Your task to perform on an android device: see tabs open on other devices in the chrome app Image 0: 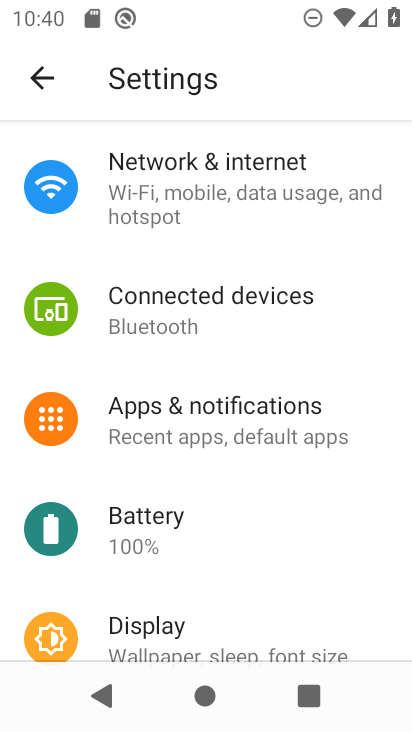
Step 0: press home button
Your task to perform on an android device: see tabs open on other devices in the chrome app Image 1: 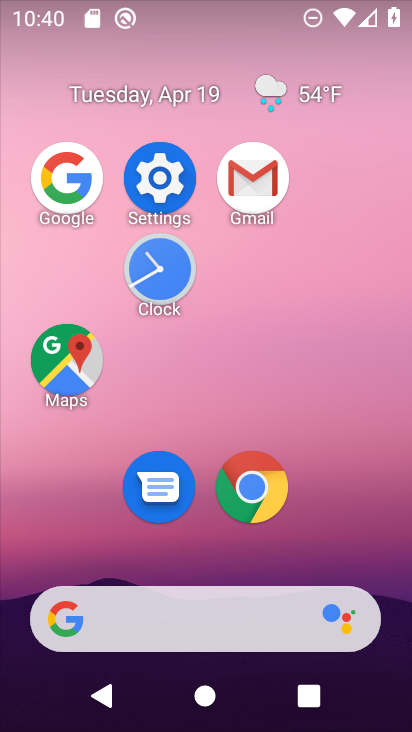
Step 1: click (262, 494)
Your task to perform on an android device: see tabs open on other devices in the chrome app Image 2: 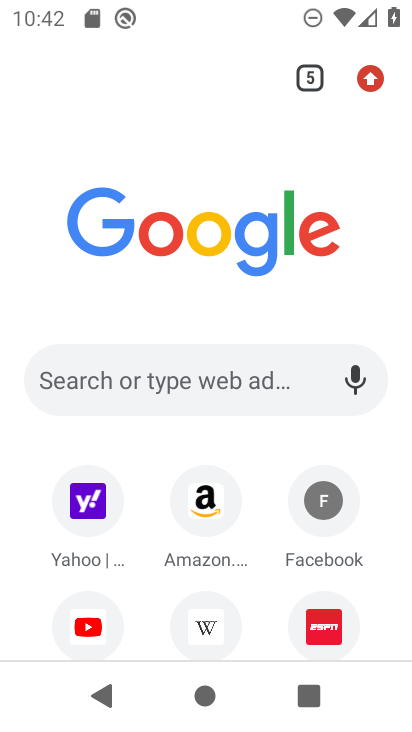
Step 2: click (319, 71)
Your task to perform on an android device: see tabs open on other devices in the chrome app Image 3: 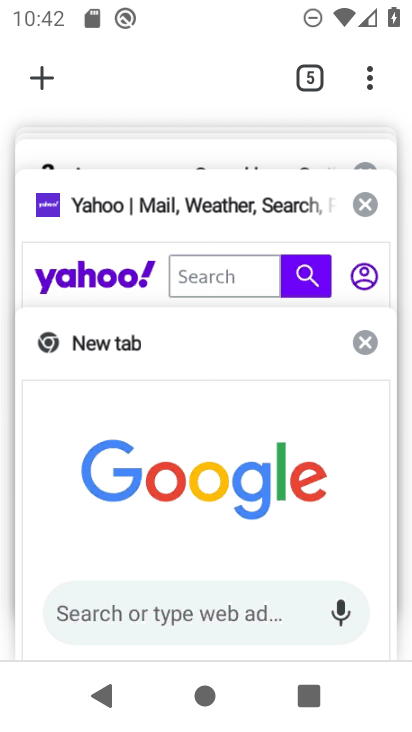
Step 3: click (56, 84)
Your task to perform on an android device: see tabs open on other devices in the chrome app Image 4: 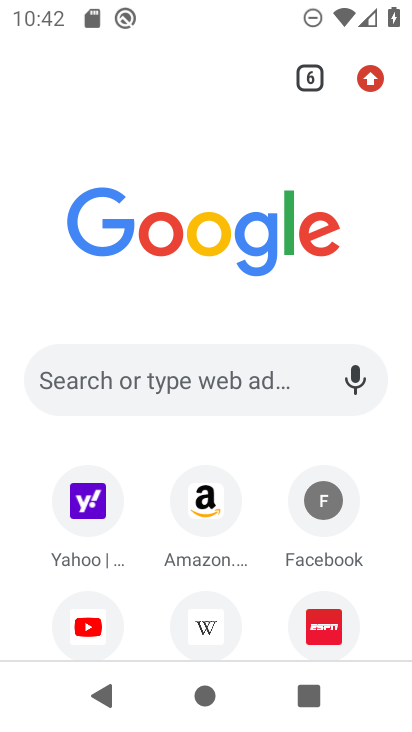
Step 4: task complete